Your task to perform on an android device: toggle javascript in the chrome app Image 0: 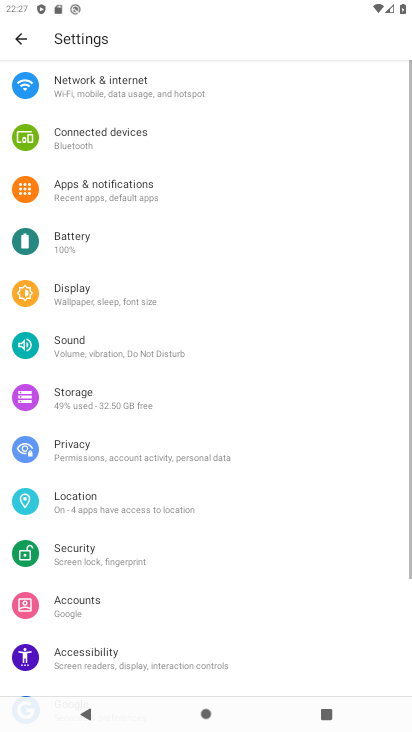
Step 0: press home button
Your task to perform on an android device: toggle javascript in the chrome app Image 1: 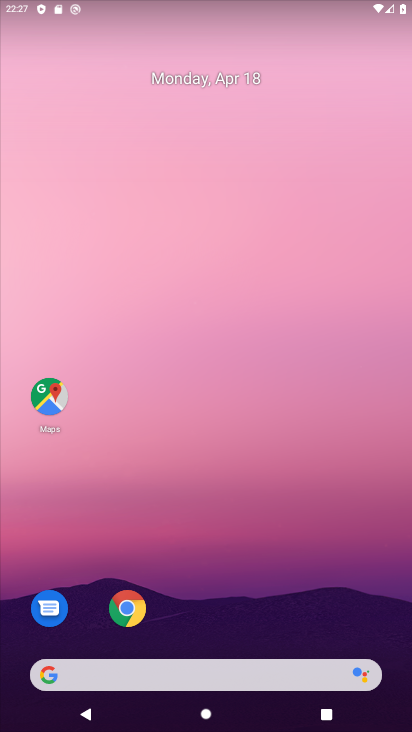
Step 1: click (124, 610)
Your task to perform on an android device: toggle javascript in the chrome app Image 2: 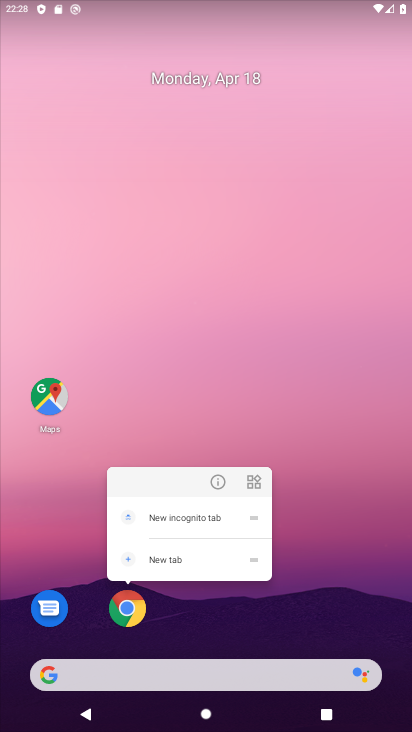
Step 2: click (126, 608)
Your task to perform on an android device: toggle javascript in the chrome app Image 3: 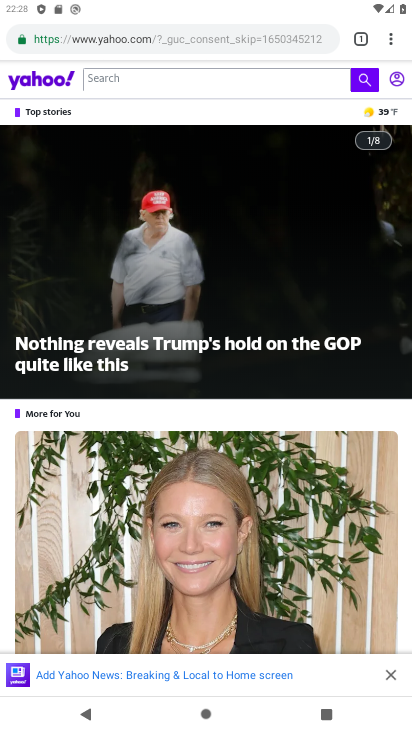
Step 3: click (390, 42)
Your task to perform on an android device: toggle javascript in the chrome app Image 4: 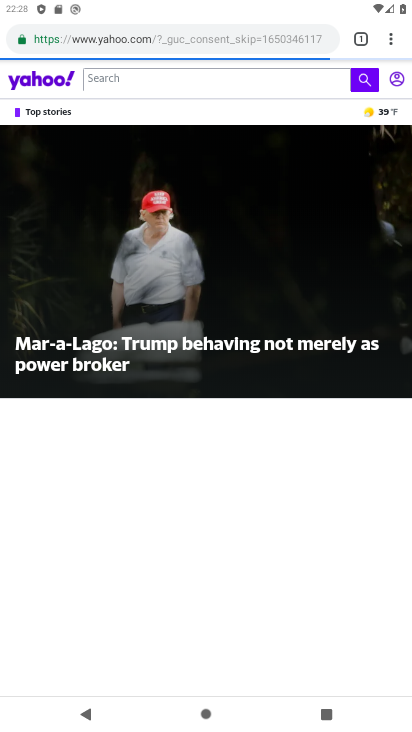
Step 4: drag from (390, 42) to (320, 501)
Your task to perform on an android device: toggle javascript in the chrome app Image 5: 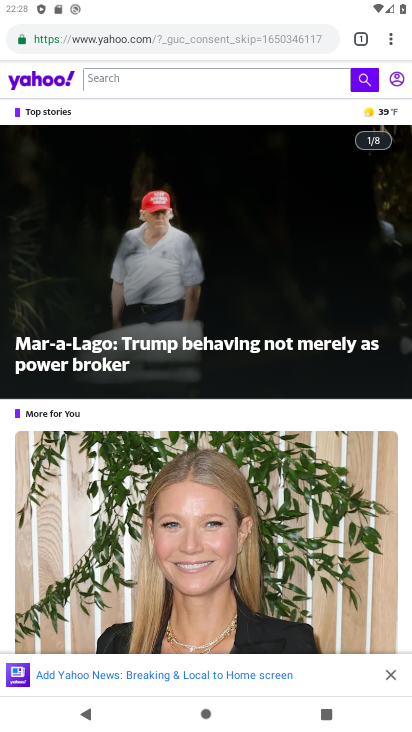
Step 5: click (321, 501)
Your task to perform on an android device: toggle javascript in the chrome app Image 6: 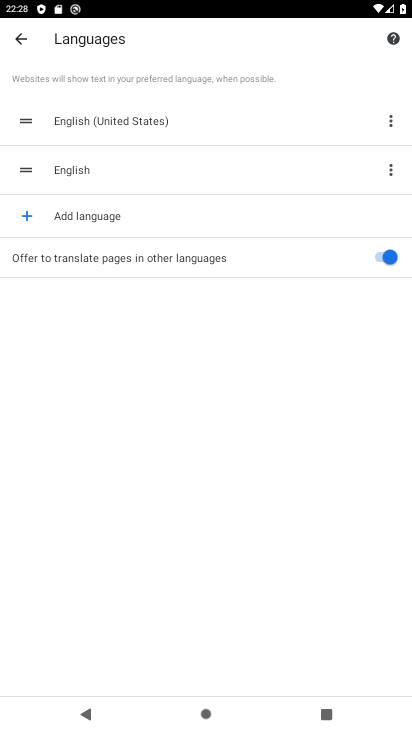
Step 6: press back button
Your task to perform on an android device: toggle javascript in the chrome app Image 7: 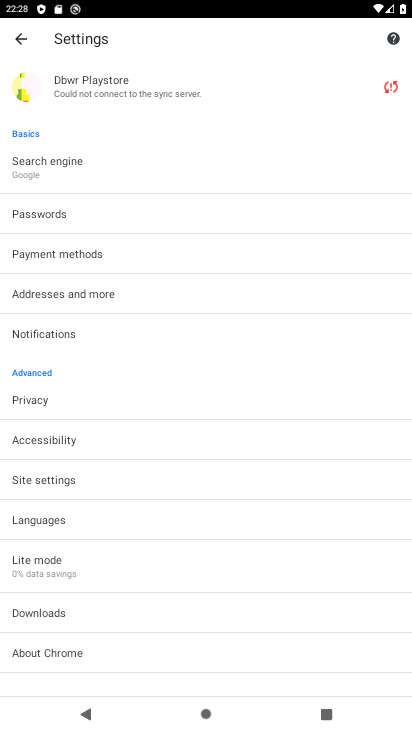
Step 7: click (61, 483)
Your task to perform on an android device: toggle javascript in the chrome app Image 8: 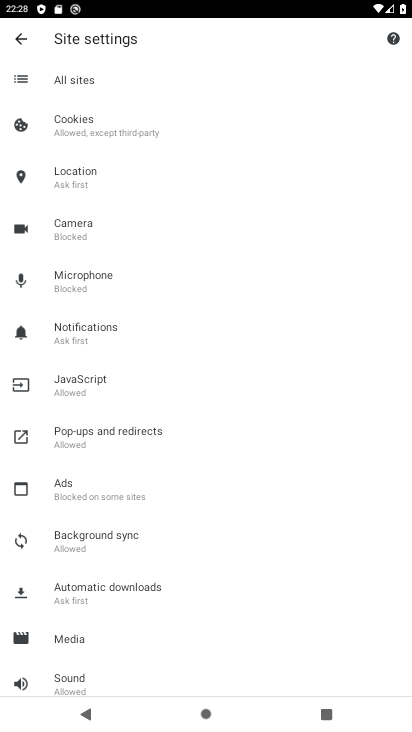
Step 8: click (85, 397)
Your task to perform on an android device: toggle javascript in the chrome app Image 9: 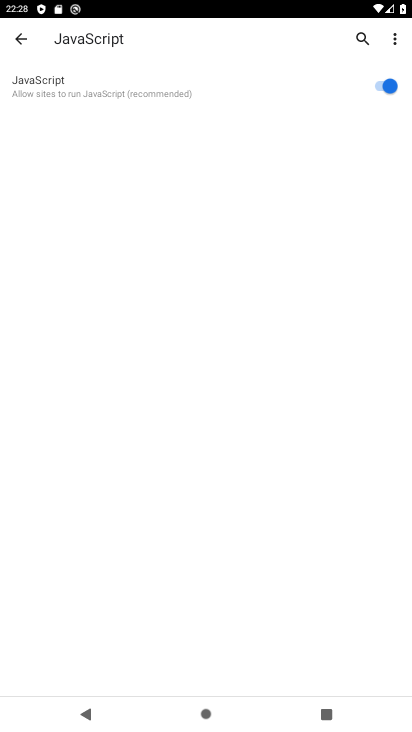
Step 9: click (393, 81)
Your task to perform on an android device: toggle javascript in the chrome app Image 10: 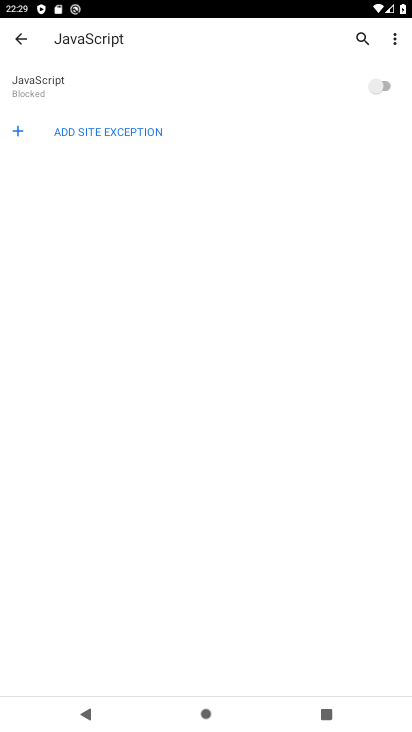
Step 10: task complete